Your task to perform on an android device: turn smart compose on in the gmail app Image 0: 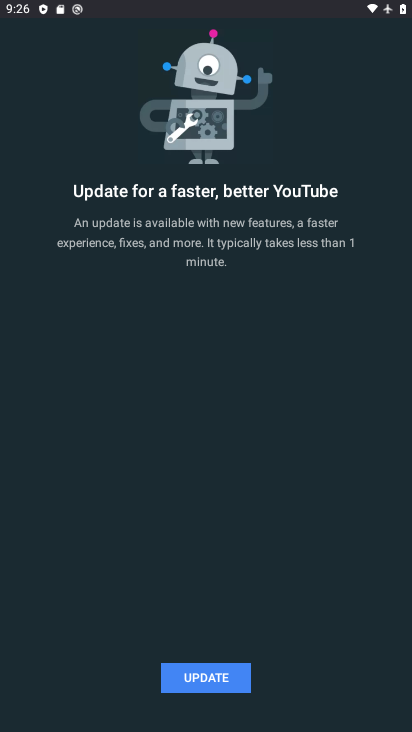
Step 0: press home button
Your task to perform on an android device: turn smart compose on in the gmail app Image 1: 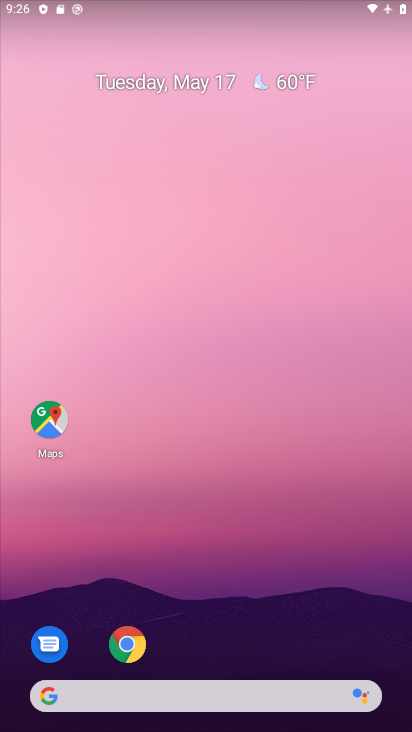
Step 1: drag from (228, 626) to (207, 118)
Your task to perform on an android device: turn smart compose on in the gmail app Image 2: 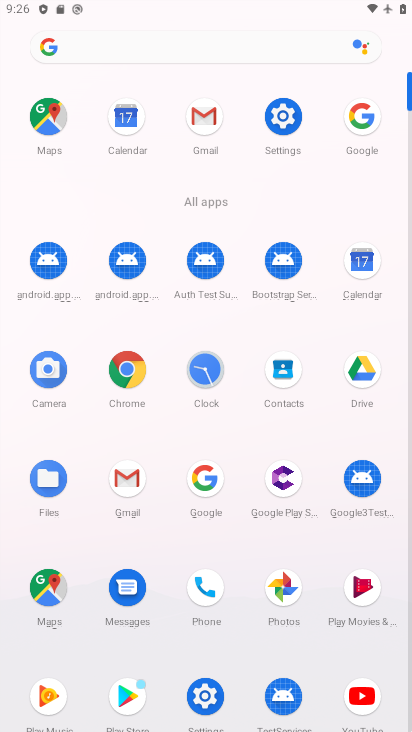
Step 2: click (197, 133)
Your task to perform on an android device: turn smart compose on in the gmail app Image 3: 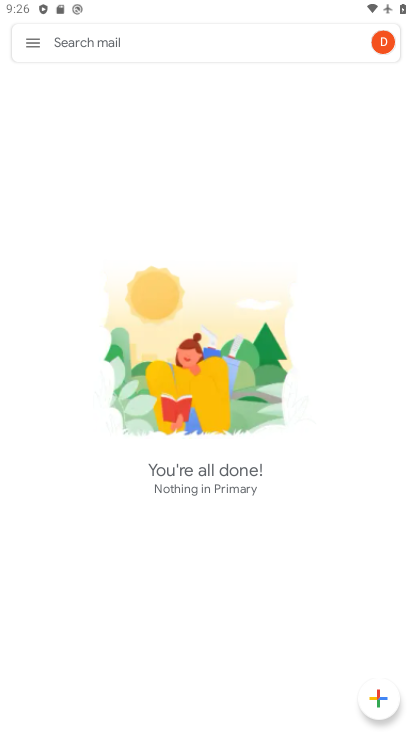
Step 3: click (26, 47)
Your task to perform on an android device: turn smart compose on in the gmail app Image 4: 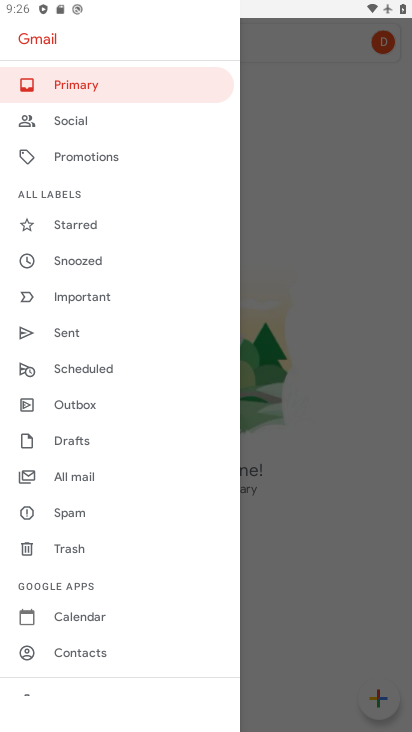
Step 4: drag from (95, 640) to (109, 415)
Your task to perform on an android device: turn smart compose on in the gmail app Image 5: 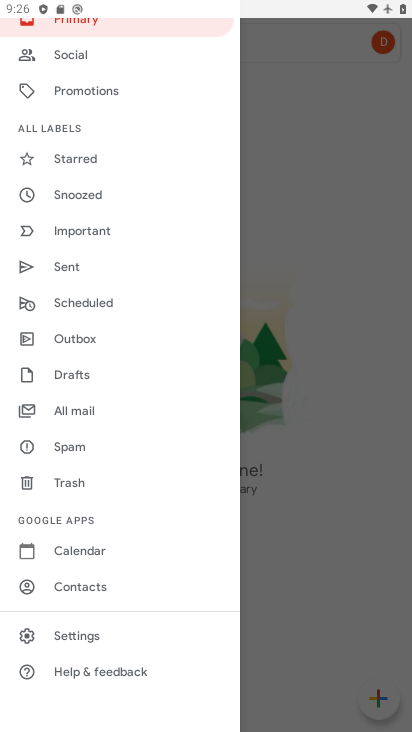
Step 5: click (93, 639)
Your task to perform on an android device: turn smart compose on in the gmail app Image 6: 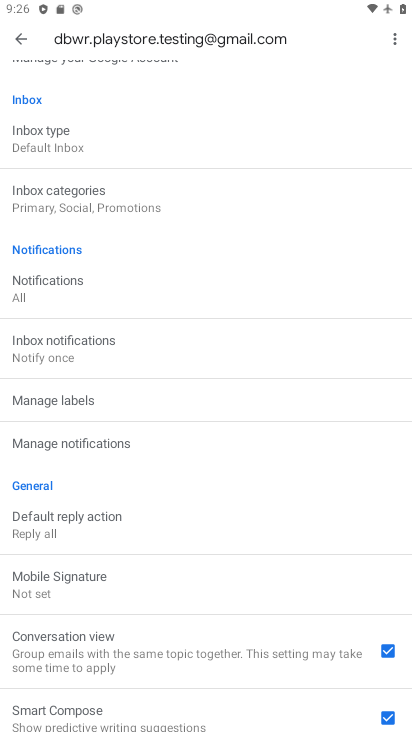
Step 6: task complete